Your task to perform on an android device: change timer sound Image 0: 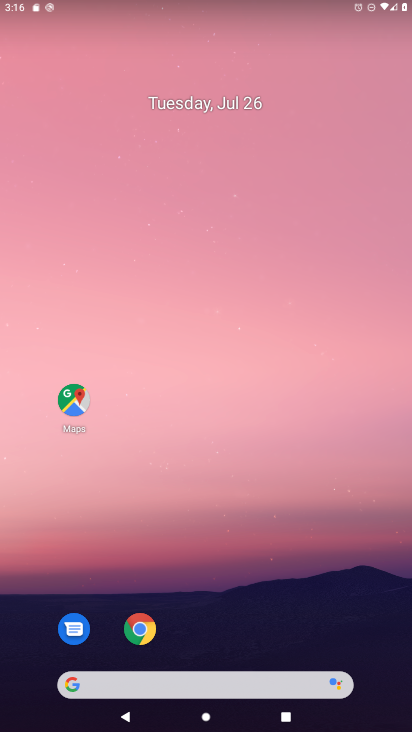
Step 0: drag from (211, 613) to (212, 199)
Your task to perform on an android device: change timer sound Image 1: 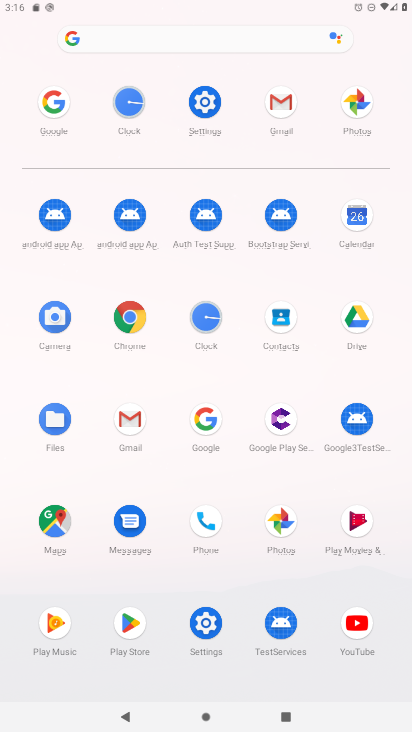
Step 1: click (138, 98)
Your task to perform on an android device: change timer sound Image 2: 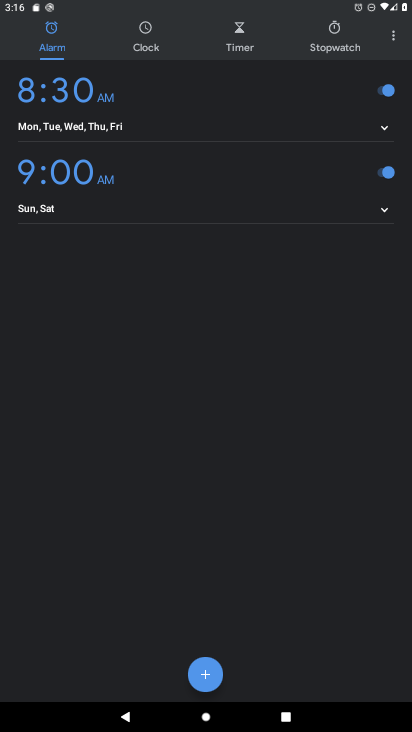
Step 2: click (387, 32)
Your task to perform on an android device: change timer sound Image 3: 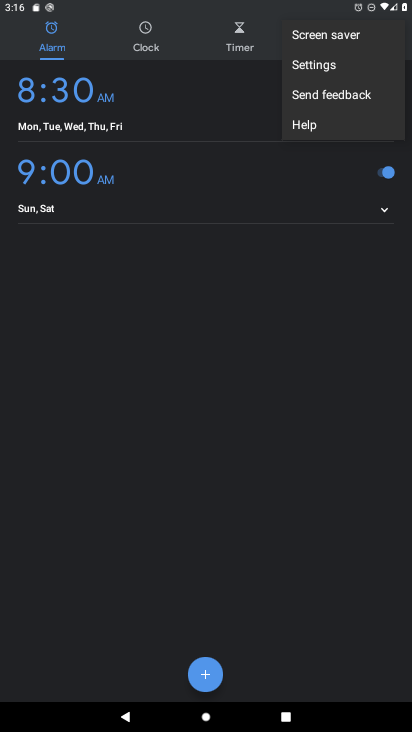
Step 3: click (334, 73)
Your task to perform on an android device: change timer sound Image 4: 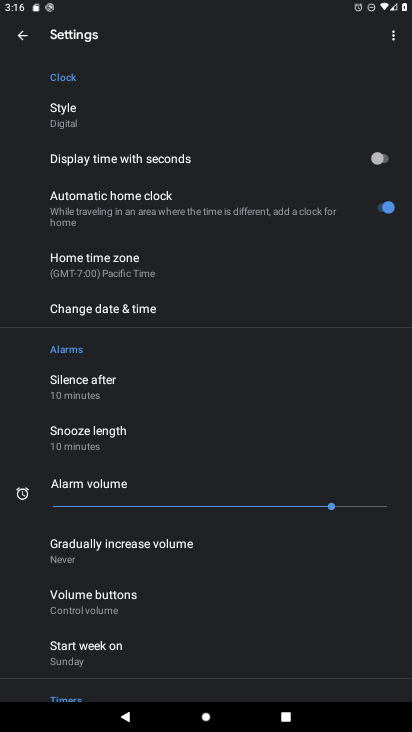
Step 4: drag from (138, 625) to (161, 391)
Your task to perform on an android device: change timer sound Image 5: 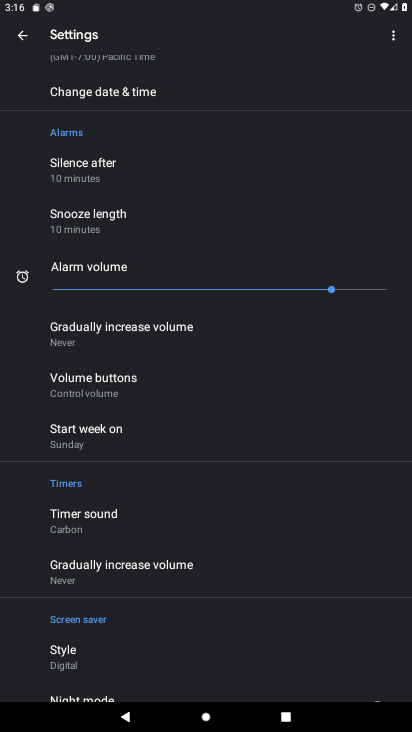
Step 5: click (102, 525)
Your task to perform on an android device: change timer sound Image 6: 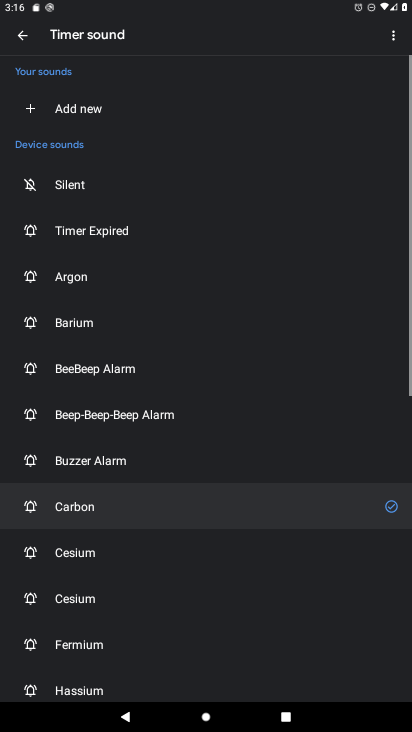
Step 6: click (124, 367)
Your task to perform on an android device: change timer sound Image 7: 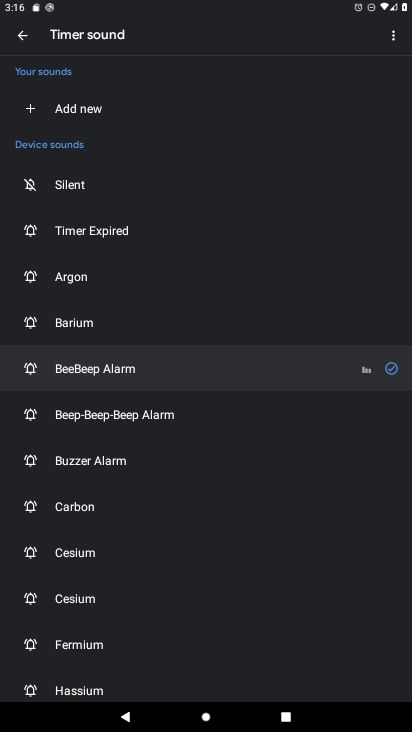
Step 7: task complete